Your task to perform on an android device: open a bookmark in the chrome app Image 0: 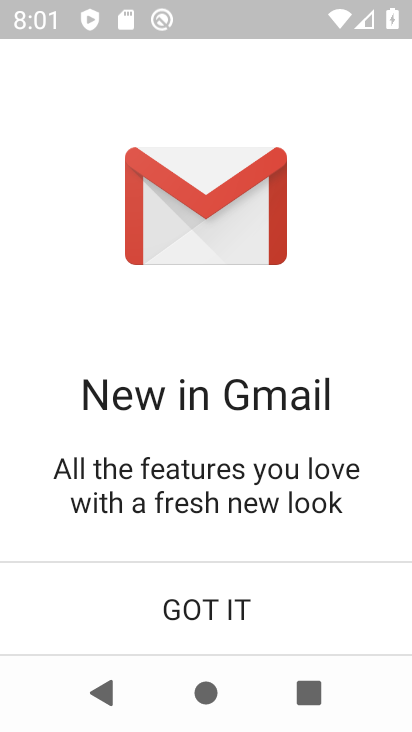
Step 0: press home button
Your task to perform on an android device: open a bookmark in the chrome app Image 1: 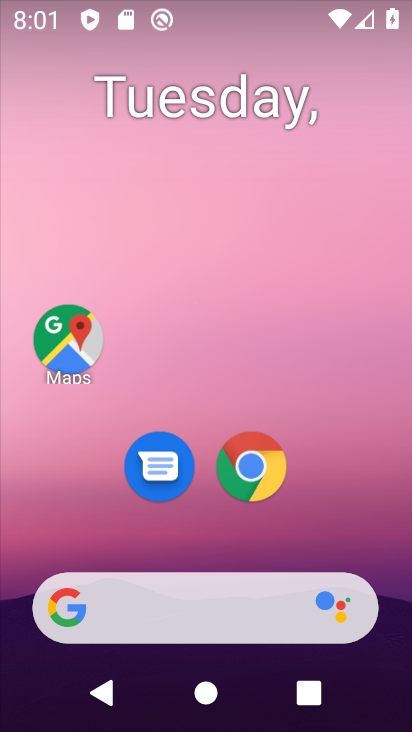
Step 1: click (252, 466)
Your task to perform on an android device: open a bookmark in the chrome app Image 2: 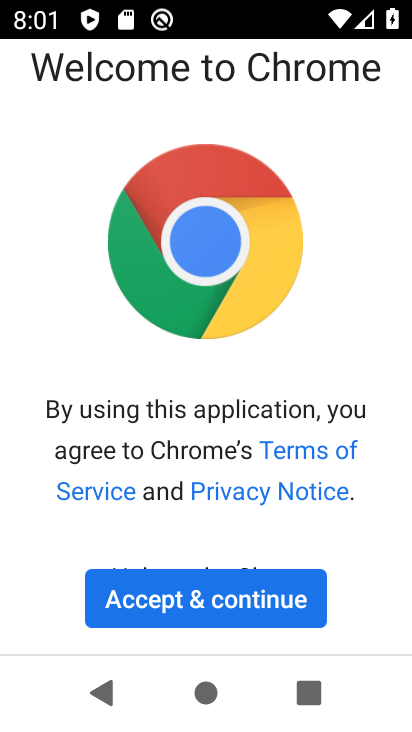
Step 2: click (240, 610)
Your task to perform on an android device: open a bookmark in the chrome app Image 3: 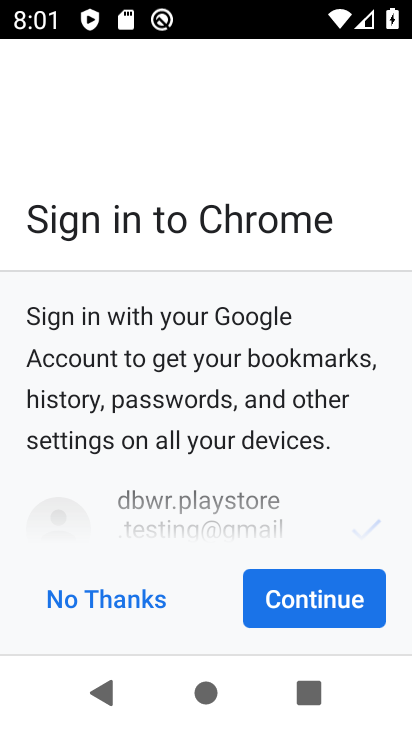
Step 3: click (309, 601)
Your task to perform on an android device: open a bookmark in the chrome app Image 4: 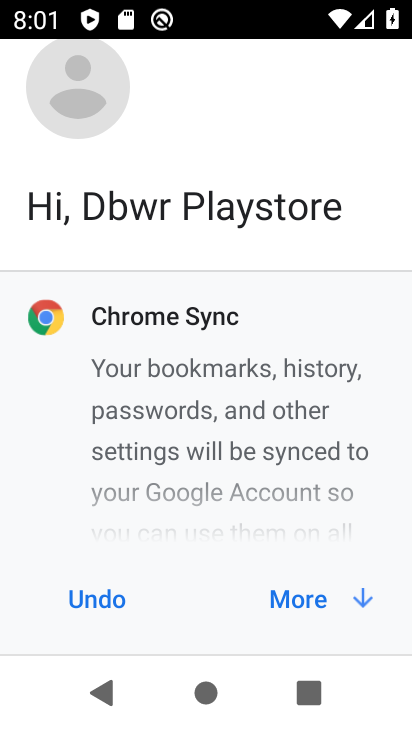
Step 4: click (307, 603)
Your task to perform on an android device: open a bookmark in the chrome app Image 5: 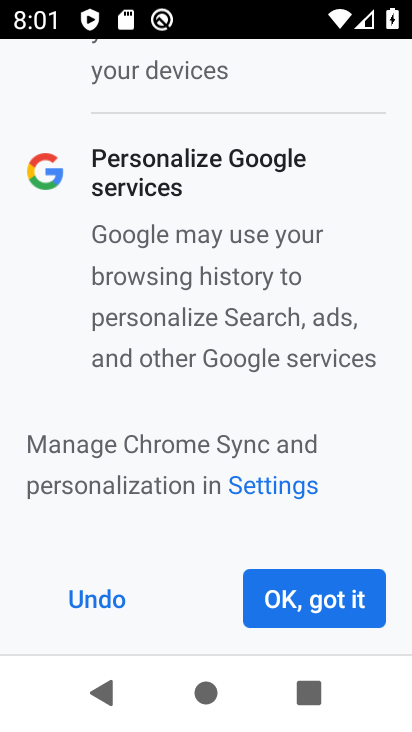
Step 5: click (308, 603)
Your task to perform on an android device: open a bookmark in the chrome app Image 6: 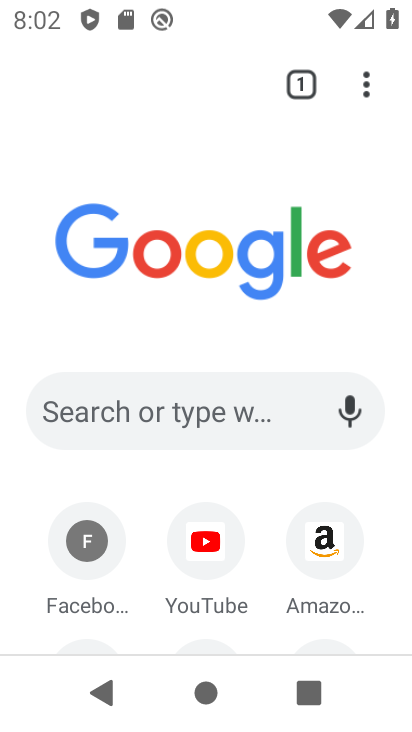
Step 6: click (377, 81)
Your task to perform on an android device: open a bookmark in the chrome app Image 7: 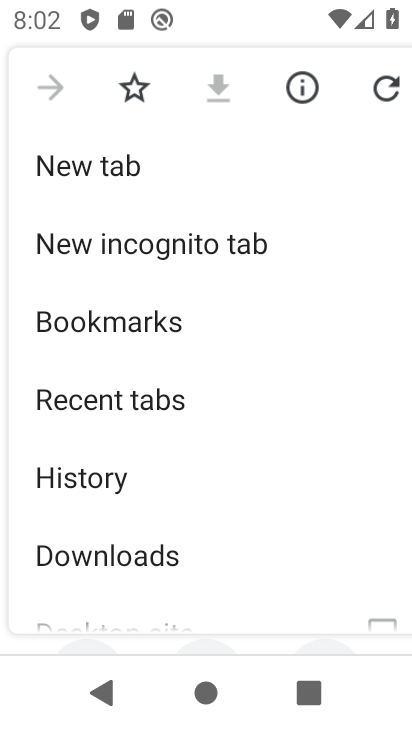
Step 7: click (111, 328)
Your task to perform on an android device: open a bookmark in the chrome app Image 8: 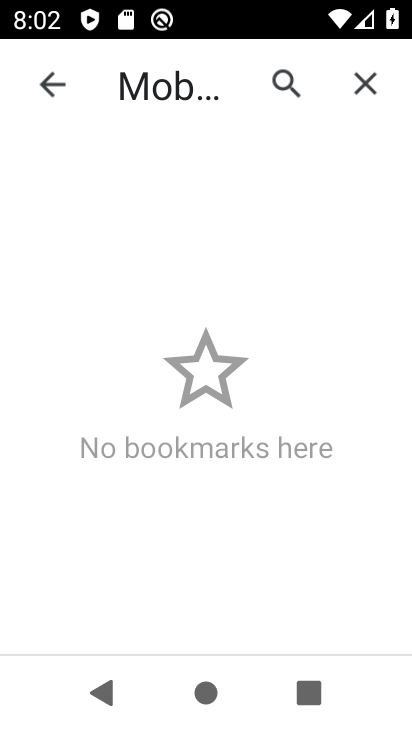
Step 8: task complete